Your task to perform on an android device: toggle data saver in the chrome app Image 0: 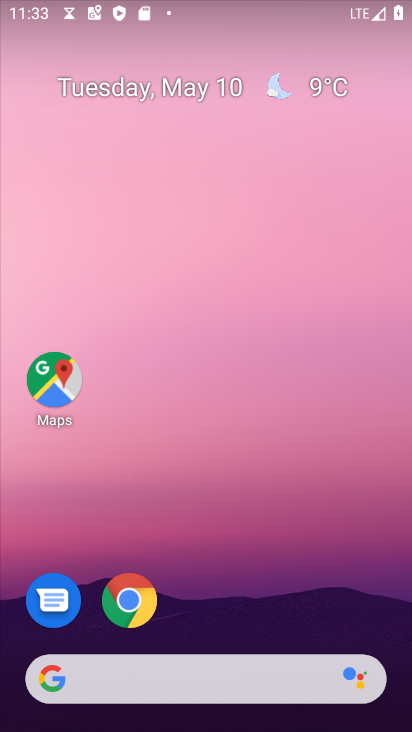
Step 0: click (143, 598)
Your task to perform on an android device: toggle data saver in the chrome app Image 1: 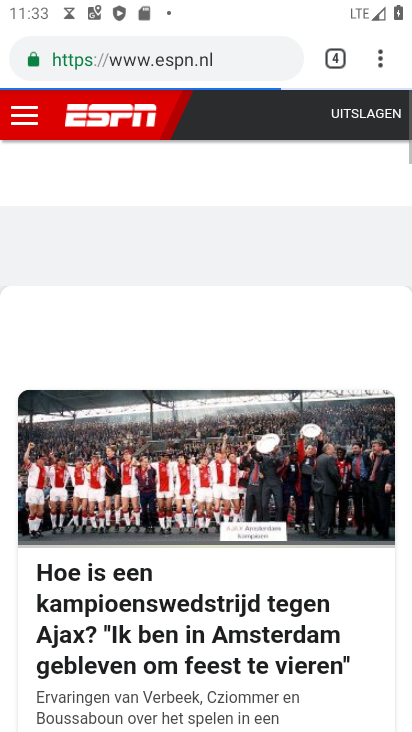
Step 1: click (374, 56)
Your task to perform on an android device: toggle data saver in the chrome app Image 2: 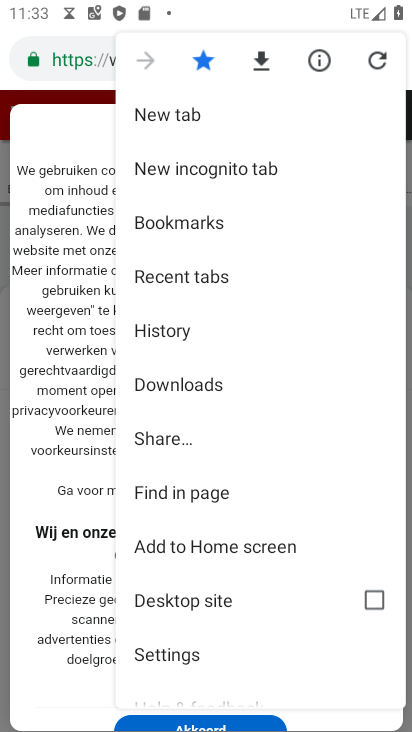
Step 2: click (215, 640)
Your task to perform on an android device: toggle data saver in the chrome app Image 3: 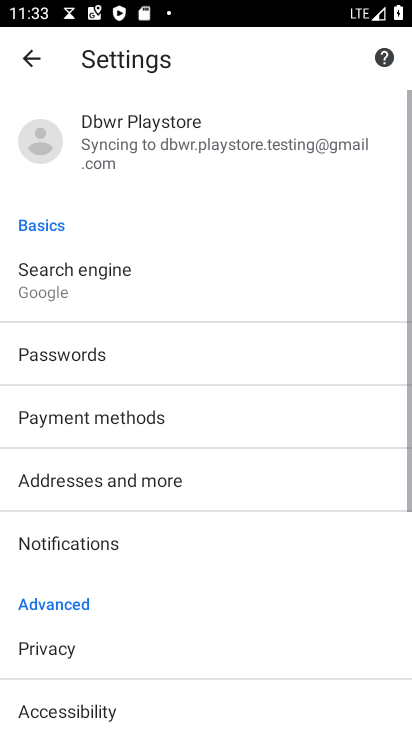
Step 3: drag from (174, 613) to (168, 139)
Your task to perform on an android device: toggle data saver in the chrome app Image 4: 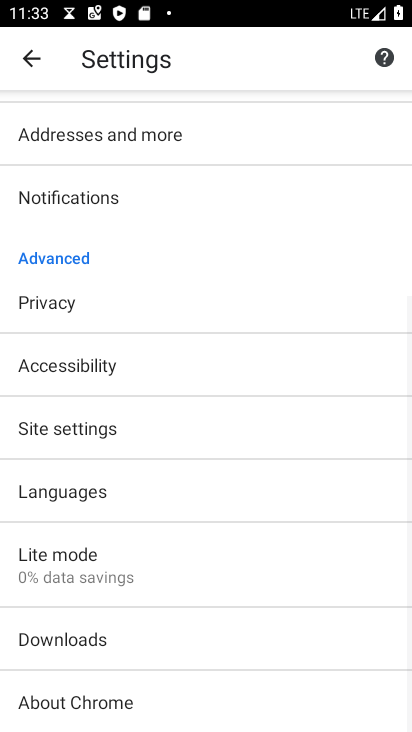
Step 4: click (134, 570)
Your task to perform on an android device: toggle data saver in the chrome app Image 5: 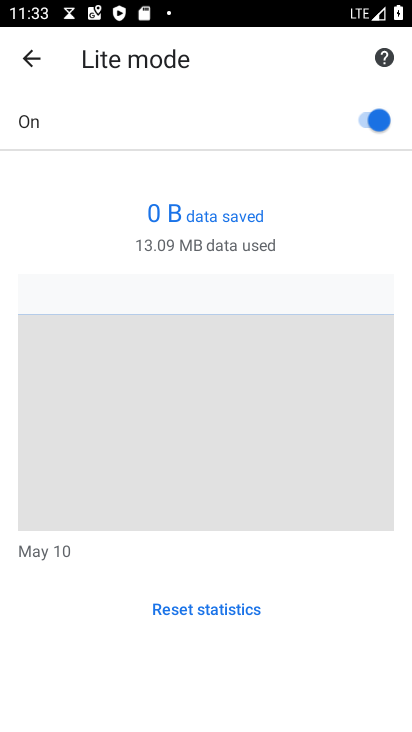
Step 5: click (374, 112)
Your task to perform on an android device: toggle data saver in the chrome app Image 6: 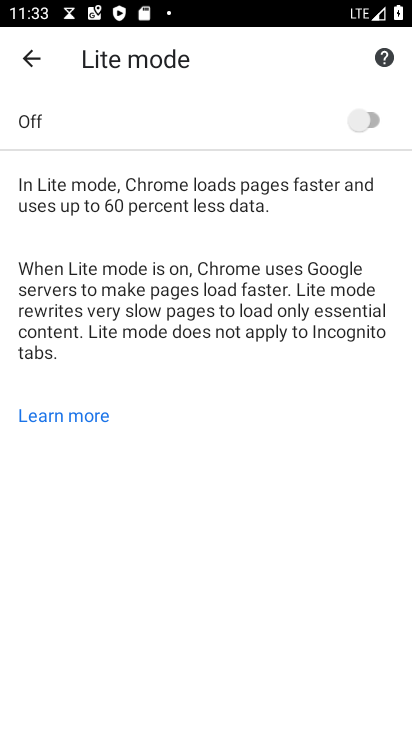
Step 6: task complete